Your task to perform on an android device: Search for Mexican restaurants on Maps Image 0: 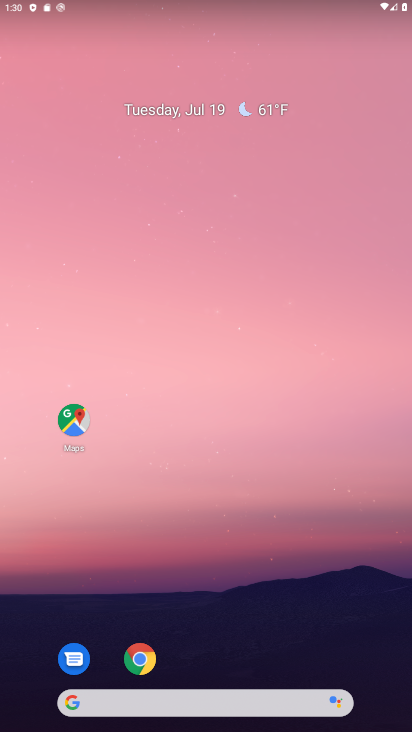
Step 0: click (74, 427)
Your task to perform on an android device: Search for Mexican restaurants on Maps Image 1: 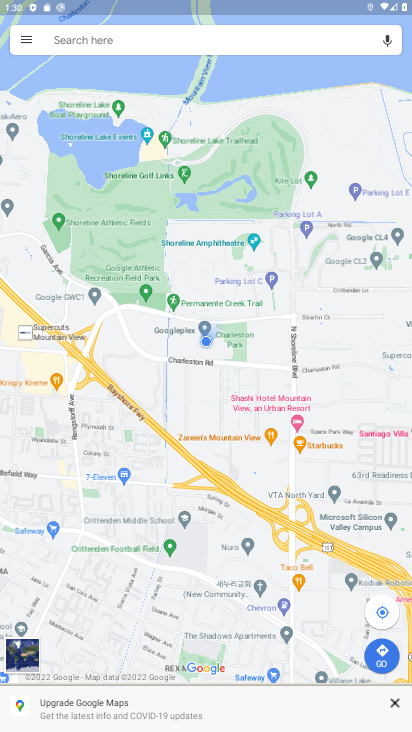
Step 1: click (25, 44)
Your task to perform on an android device: Search for Mexican restaurants on Maps Image 2: 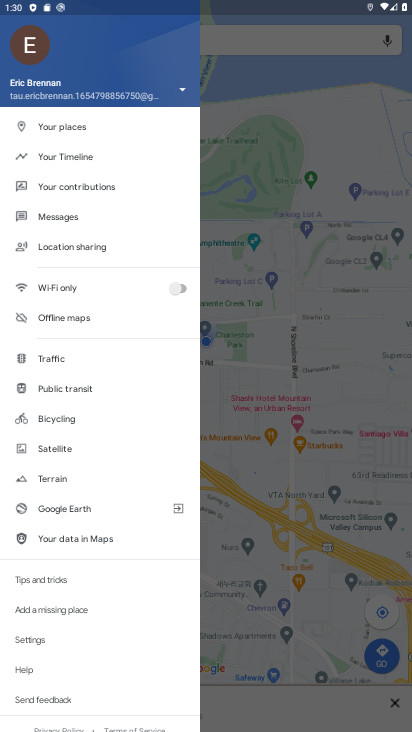
Step 2: click (292, 41)
Your task to perform on an android device: Search for Mexican restaurants on Maps Image 3: 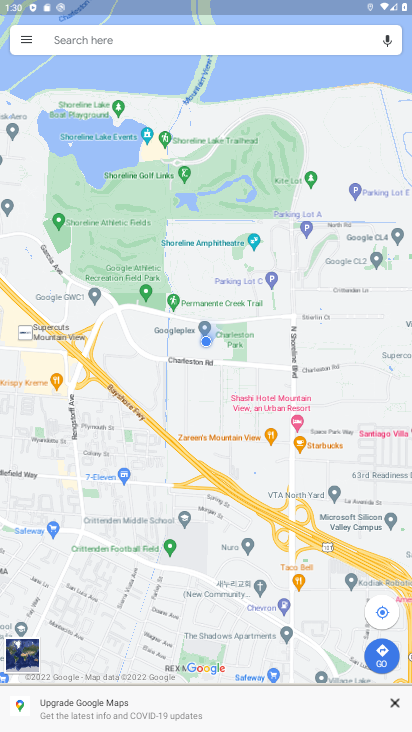
Step 3: click (292, 41)
Your task to perform on an android device: Search for Mexican restaurants on Maps Image 4: 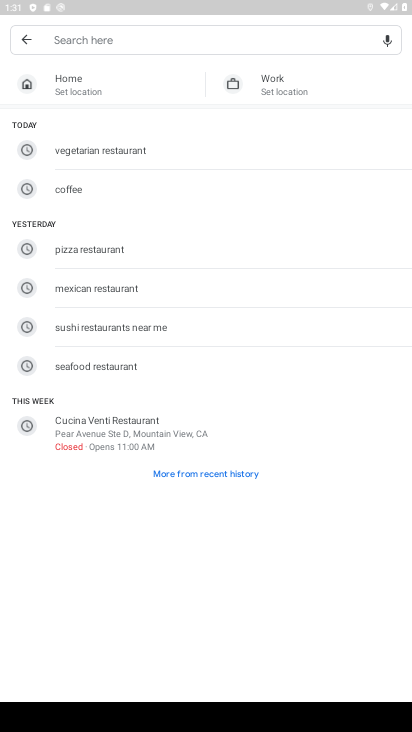
Step 4: type "mexican "
Your task to perform on an android device: Search for Mexican restaurants on Maps Image 5: 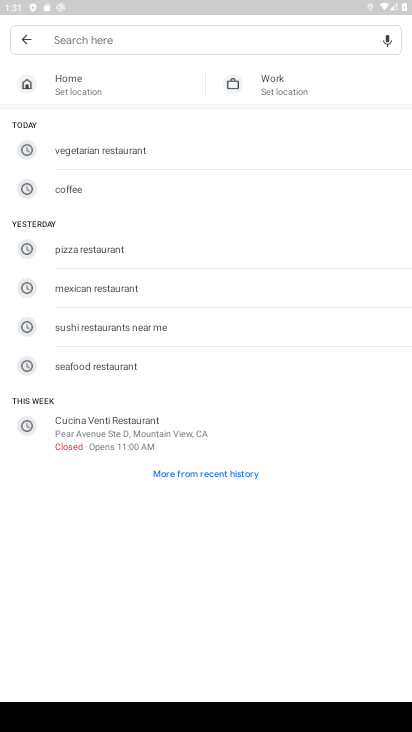
Step 5: click (83, 289)
Your task to perform on an android device: Search for Mexican restaurants on Maps Image 6: 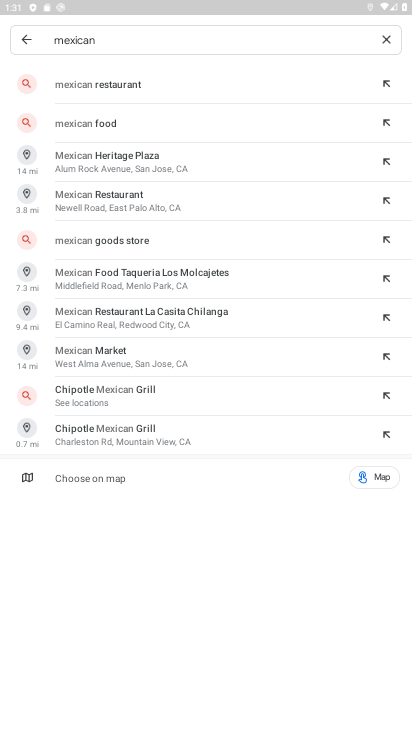
Step 6: click (111, 82)
Your task to perform on an android device: Search for Mexican restaurants on Maps Image 7: 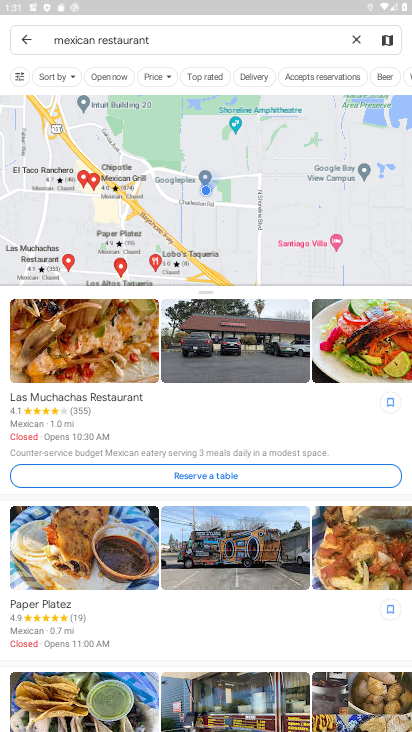
Step 7: task complete